Your task to perform on an android device: Go to internet settings Image 0: 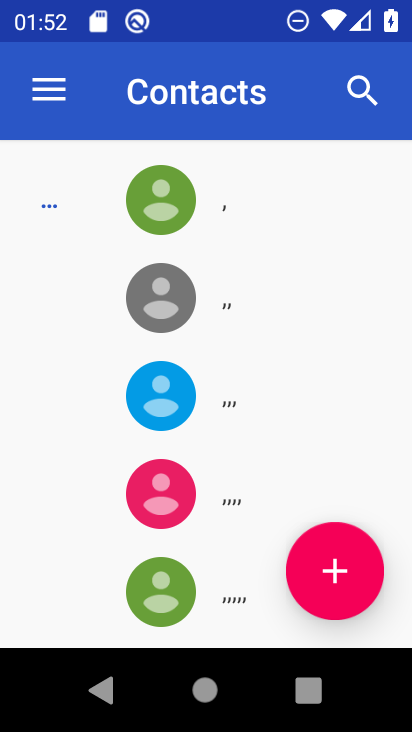
Step 0: press home button
Your task to perform on an android device: Go to internet settings Image 1: 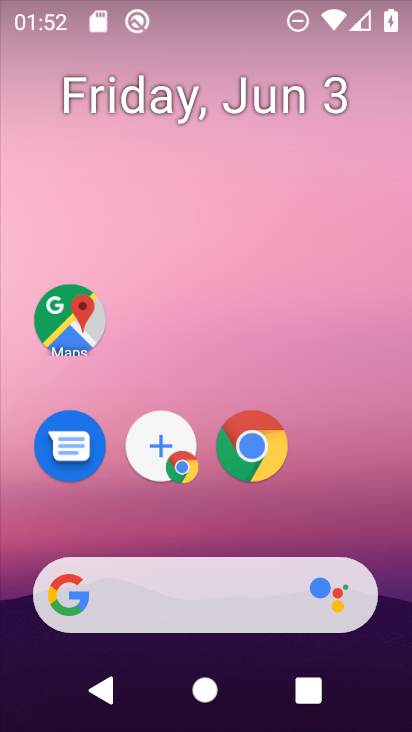
Step 1: drag from (187, 18) to (297, 7)
Your task to perform on an android device: Go to internet settings Image 2: 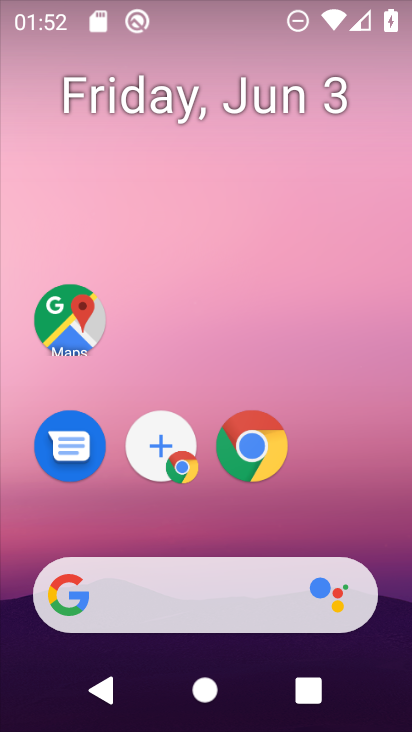
Step 2: drag from (159, 553) to (146, 39)
Your task to perform on an android device: Go to internet settings Image 3: 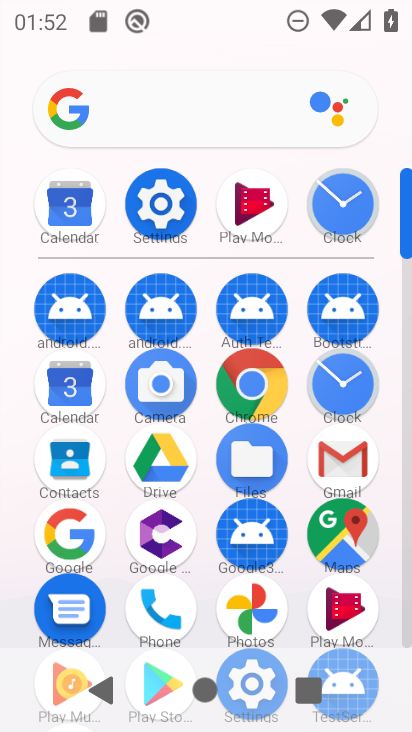
Step 3: click (168, 207)
Your task to perform on an android device: Go to internet settings Image 4: 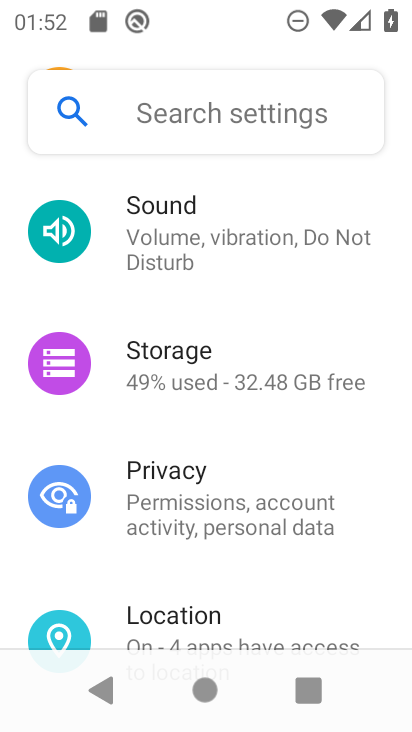
Step 4: drag from (241, 206) to (178, 711)
Your task to perform on an android device: Go to internet settings Image 5: 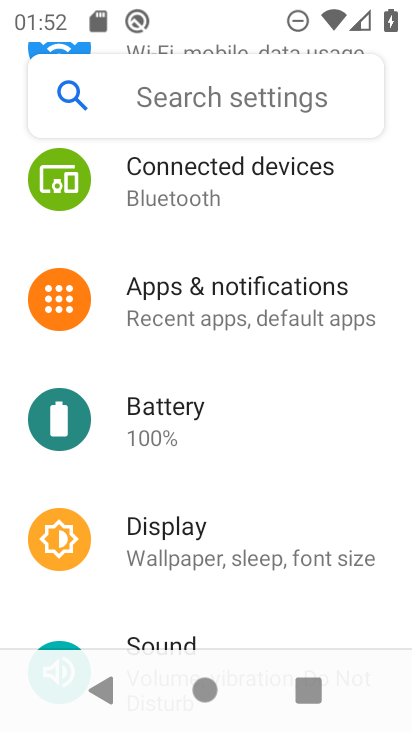
Step 5: drag from (336, 178) to (187, 726)
Your task to perform on an android device: Go to internet settings Image 6: 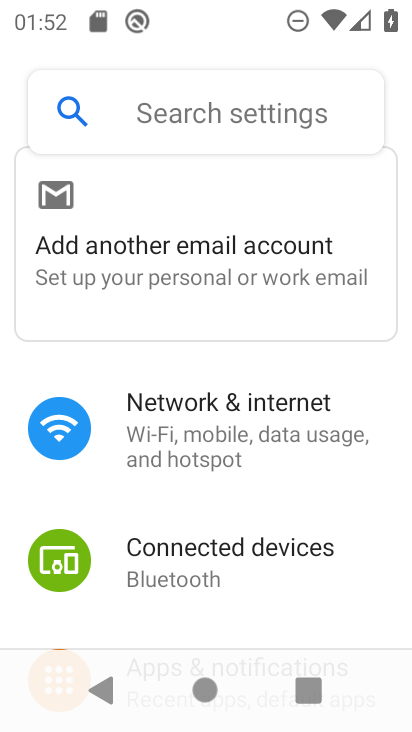
Step 6: click (282, 444)
Your task to perform on an android device: Go to internet settings Image 7: 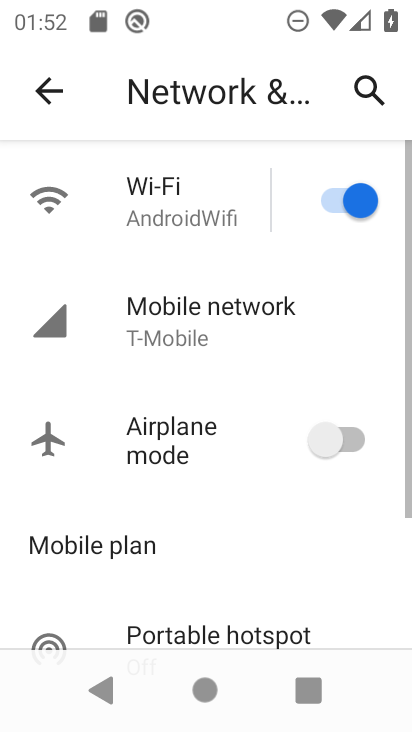
Step 7: task complete